Your task to perform on an android device: Open Youtube and go to "Your channel" Image 0: 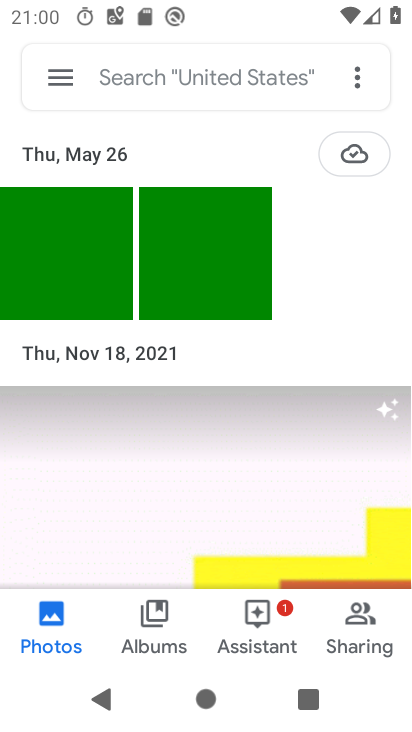
Step 0: press home button
Your task to perform on an android device: Open Youtube and go to "Your channel" Image 1: 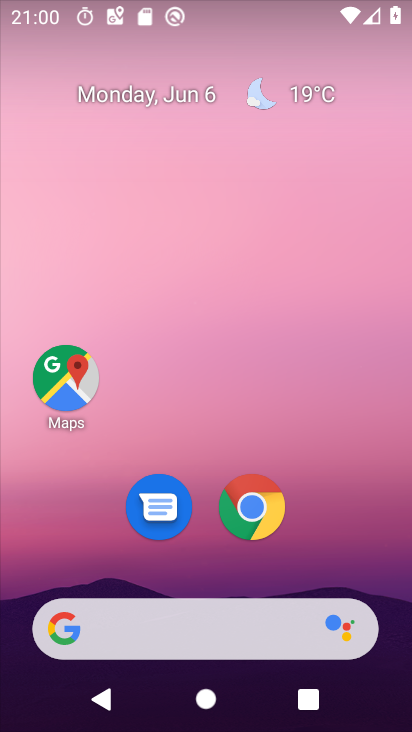
Step 1: drag from (342, 559) to (410, 71)
Your task to perform on an android device: Open Youtube and go to "Your channel" Image 2: 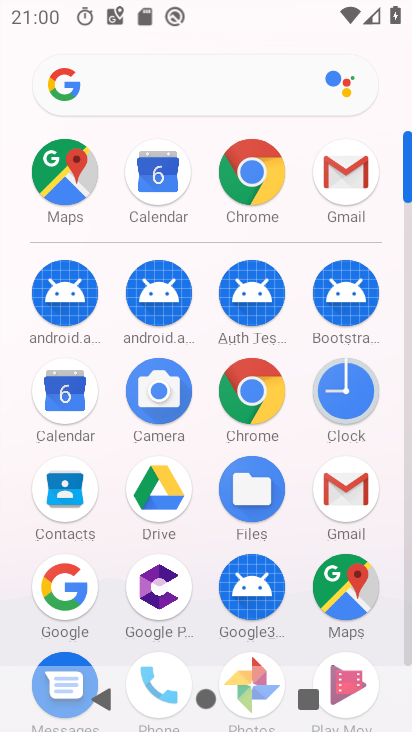
Step 2: drag from (252, 501) to (260, 192)
Your task to perform on an android device: Open Youtube and go to "Your channel" Image 3: 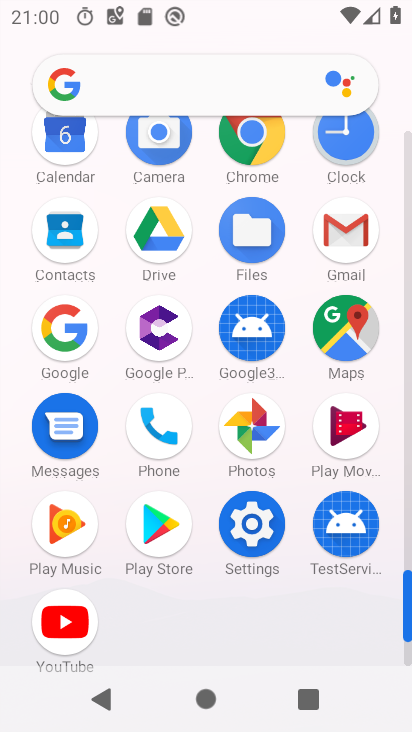
Step 3: click (63, 629)
Your task to perform on an android device: Open Youtube and go to "Your channel" Image 4: 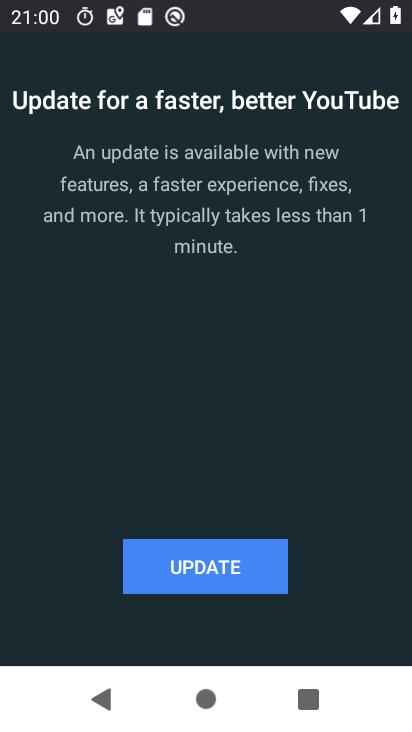
Step 4: click (156, 565)
Your task to perform on an android device: Open Youtube and go to "Your channel" Image 5: 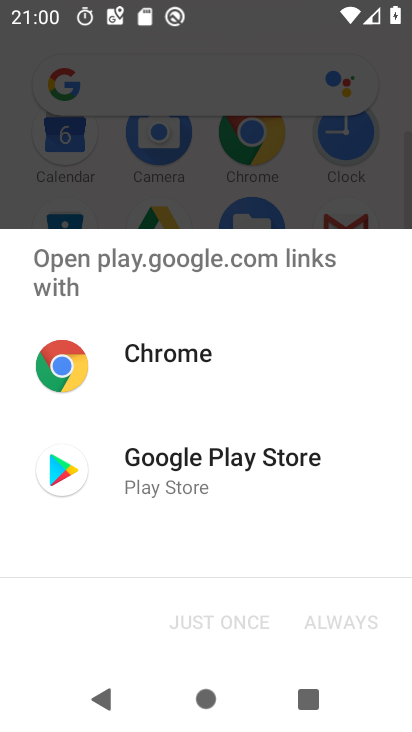
Step 5: click (203, 462)
Your task to perform on an android device: Open Youtube and go to "Your channel" Image 6: 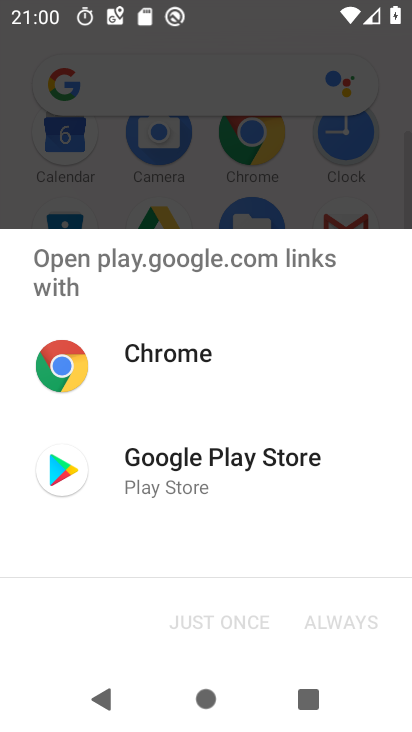
Step 6: click (68, 626)
Your task to perform on an android device: Open Youtube and go to "Your channel" Image 7: 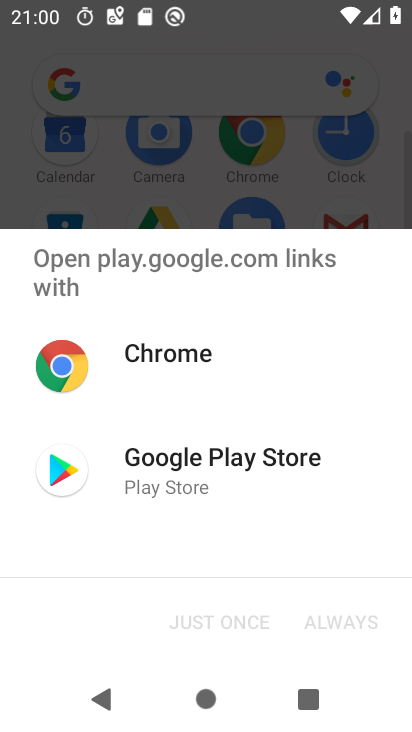
Step 7: click (171, 497)
Your task to perform on an android device: Open Youtube and go to "Your channel" Image 8: 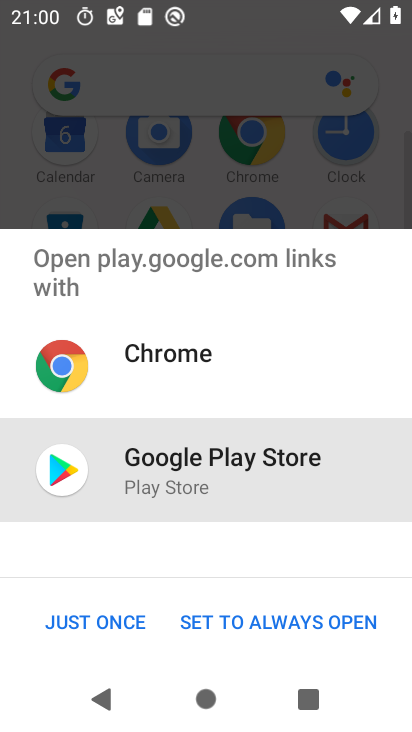
Step 8: click (97, 618)
Your task to perform on an android device: Open Youtube and go to "Your channel" Image 9: 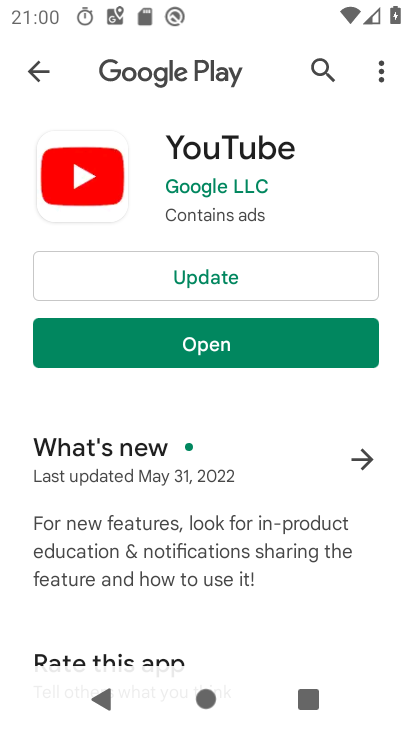
Step 9: click (210, 274)
Your task to perform on an android device: Open Youtube and go to "Your channel" Image 10: 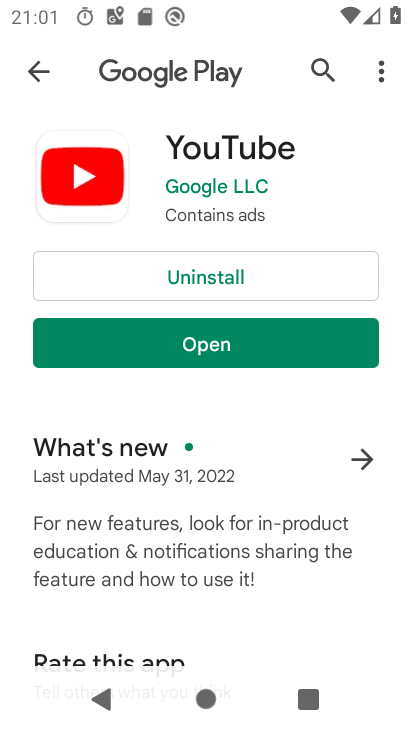
Step 10: click (233, 357)
Your task to perform on an android device: Open Youtube and go to "Your channel" Image 11: 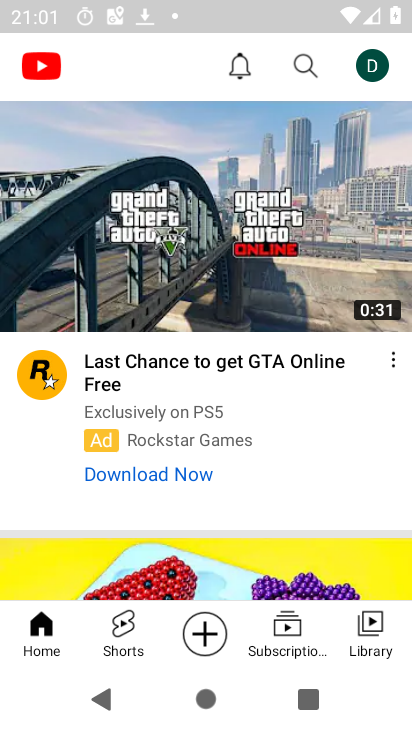
Step 11: click (374, 73)
Your task to perform on an android device: Open Youtube and go to "Your channel" Image 12: 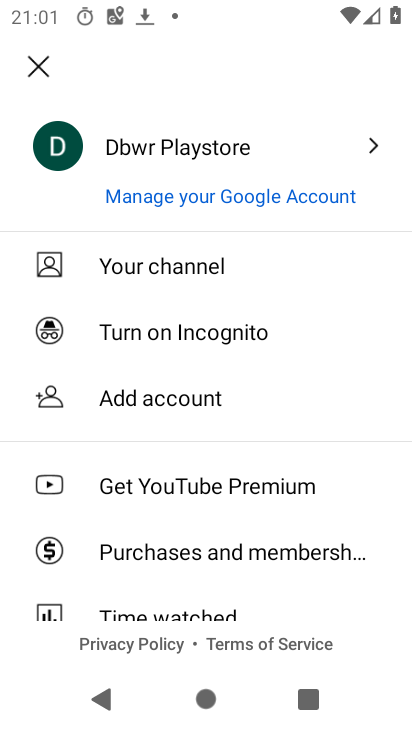
Step 12: click (102, 281)
Your task to perform on an android device: Open Youtube and go to "Your channel" Image 13: 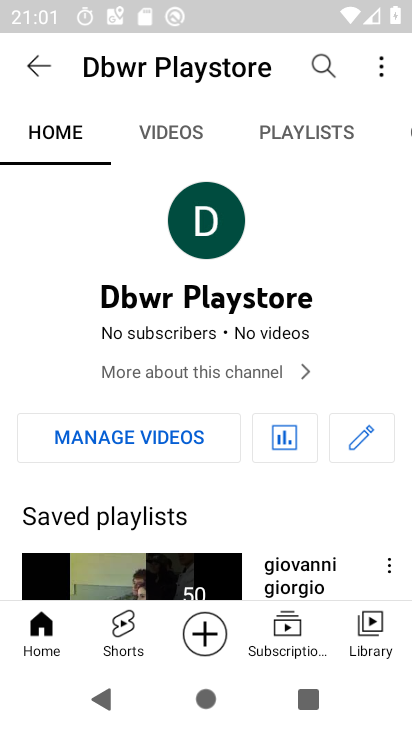
Step 13: task complete